Your task to perform on an android device: turn notification dots off Image 0: 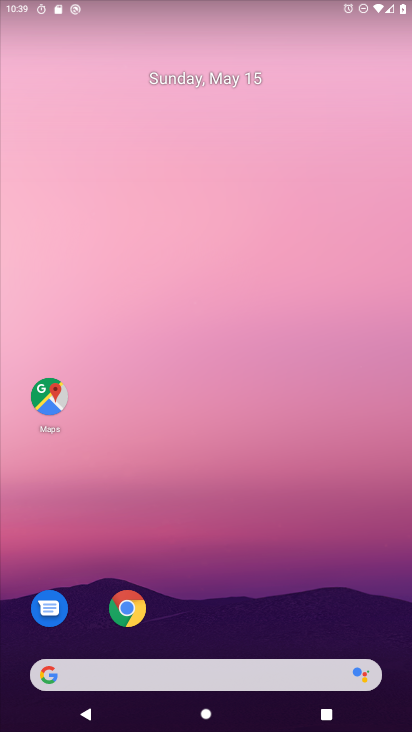
Step 0: drag from (328, 587) to (360, 188)
Your task to perform on an android device: turn notification dots off Image 1: 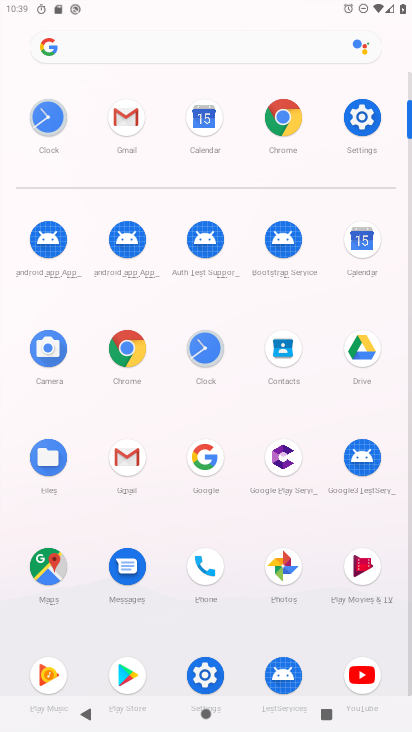
Step 1: click (209, 665)
Your task to perform on an android device: turn notification dots off Image 2: 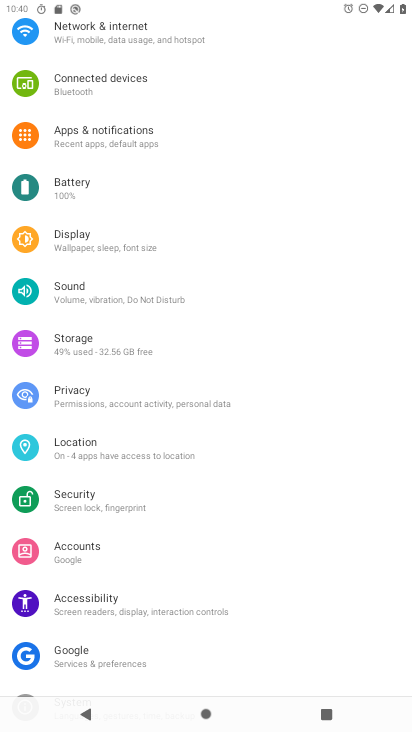
Step 2: click (139, 138)
Your task to perform on an android device: turn notification dots off Image 3: 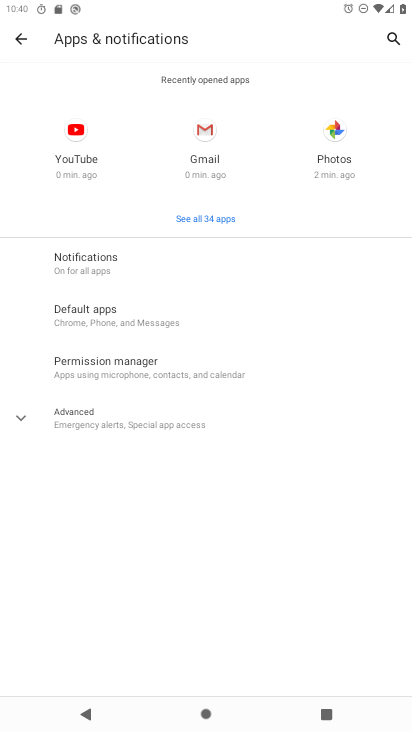
Step 3: click (127, 265)
Your task to perform on an android device: turn notification dots off Image 4: 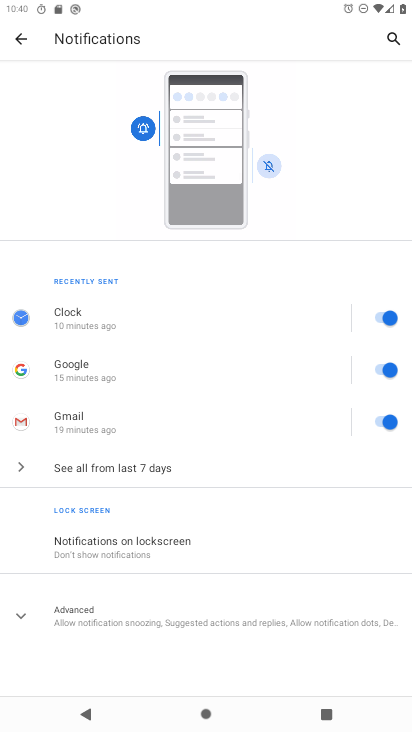
Step 4: click (182, 587)
Your task to perform on an android device: turn notification dots off Image 5: 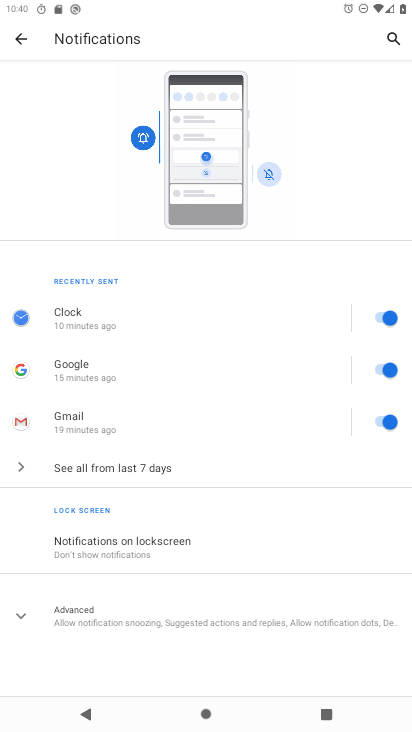
Step 5: click (64, 625)
Your task to perform on an android device: turn notification dots off Image 6: 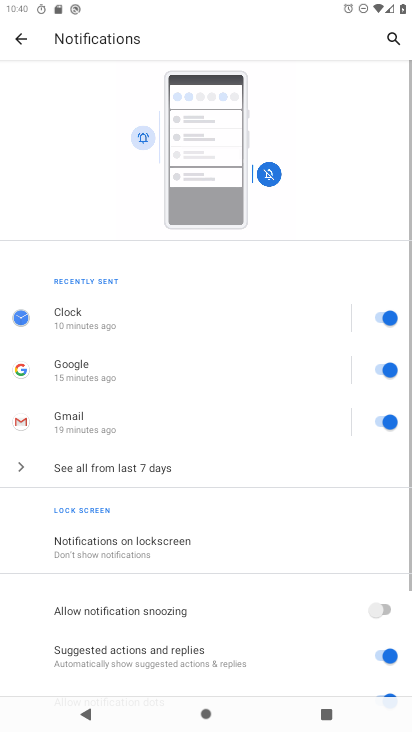
Step 6: drag from (254, 642) to (250, 478)
Your task to perform on an android device: turn notification dots off Image 7: 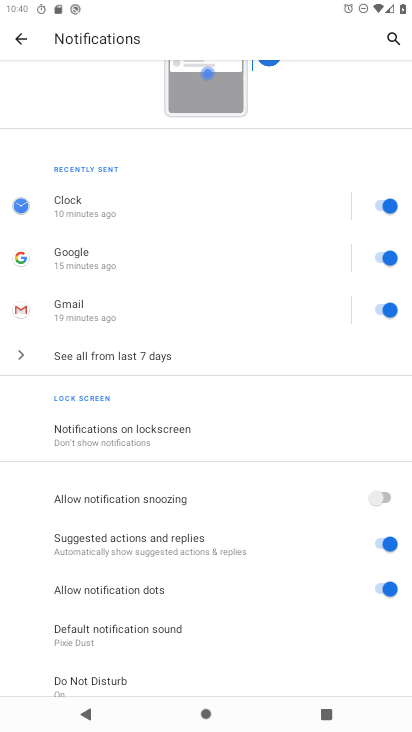
Step 7: click (382, 589)
Your task to perform on an android device: turn notification dots off Image 8: 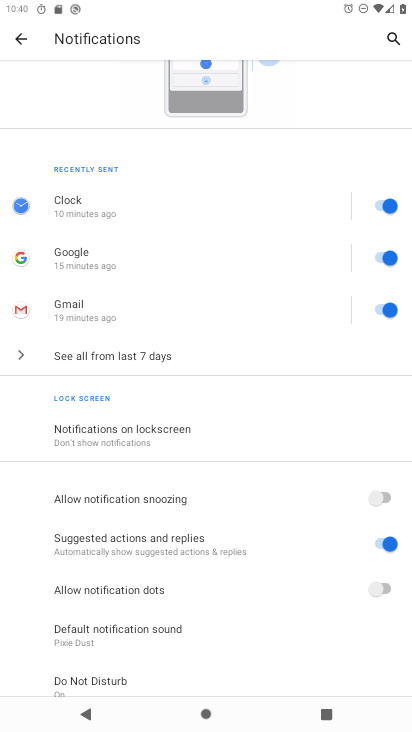
Step 8: task complete